Your task to perform on an android device: Go to wifi settings Image 0: 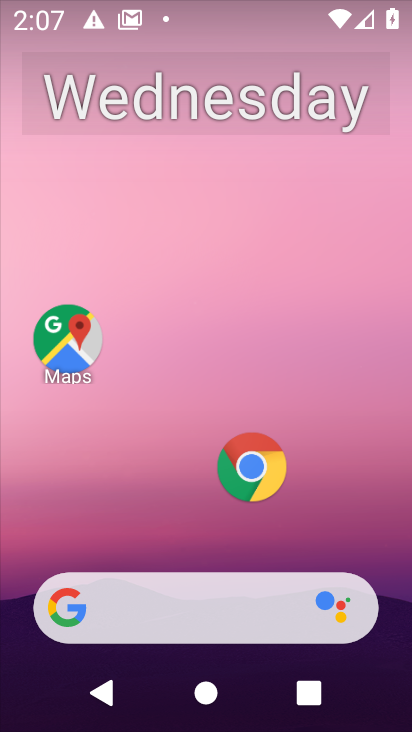
Step 0: drag from (171, 444) to (220, 0)
Your task to perform on an android device: Go to wifi settings Image 1: 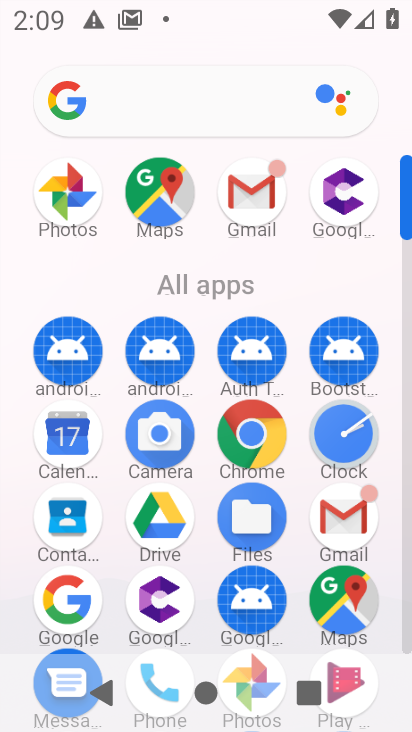
Step 1: drag from (203, 562) to (191, 176)
Your task to perform on an android device: Go to wifi settings Image 2: 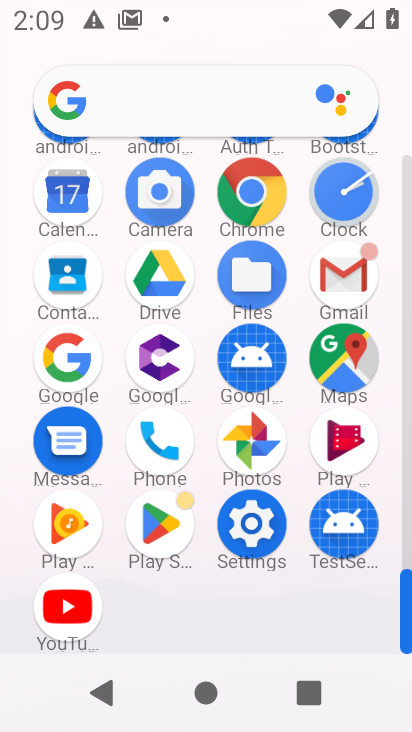
Step 2: click (257, 532)
Your task to perform on an android device: Go to wifi settings Image 3: 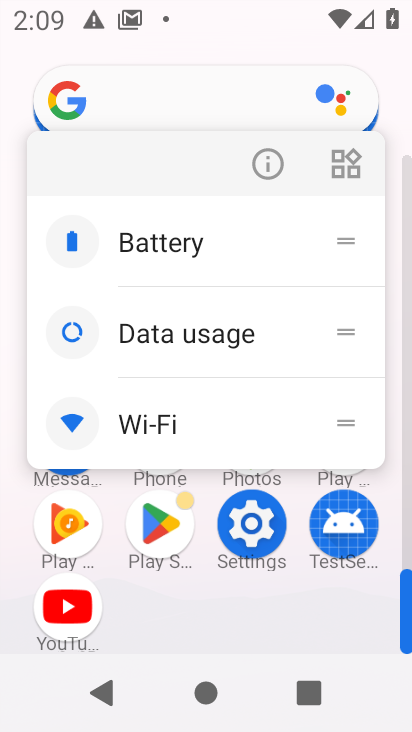
Step 3: task complete